Your task to perform on an android device: set an alarm Image 0: 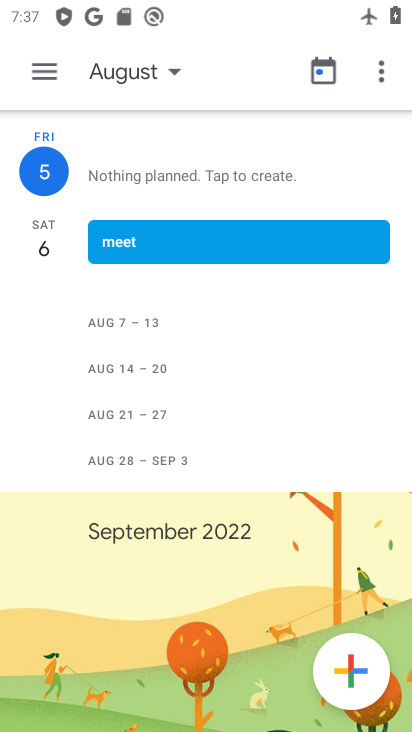
Step 0: press home button
Your task to perform on an android device: set an alarm Image 1: 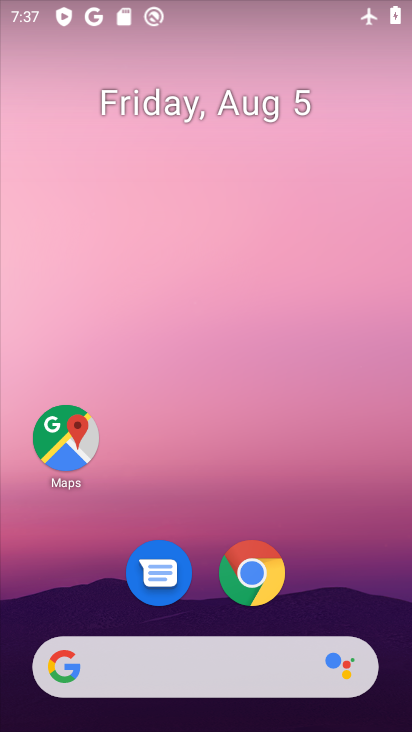
Step 1: drag from (221, 486) to (263, 40)
Your task to perform on an android device: set an alarm Image 2: 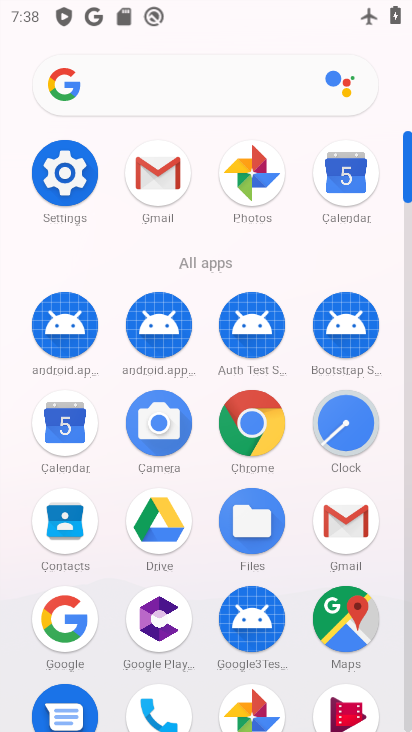
Step 2: click (347, 412)
Your task to perform on an android device: set an alarm Image 3: 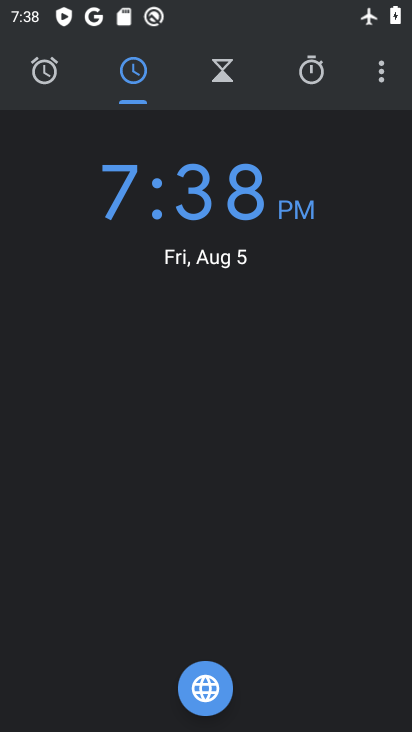
Step 3: click (50, 75)
Your task to perform on an android device: set an alarm Image 4: 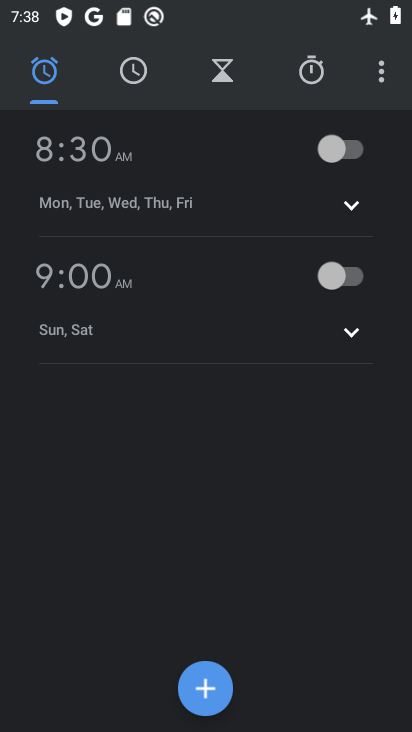
Step 4: click (202, 689)
Your task to perform on an android device: set an alarm Image 5: 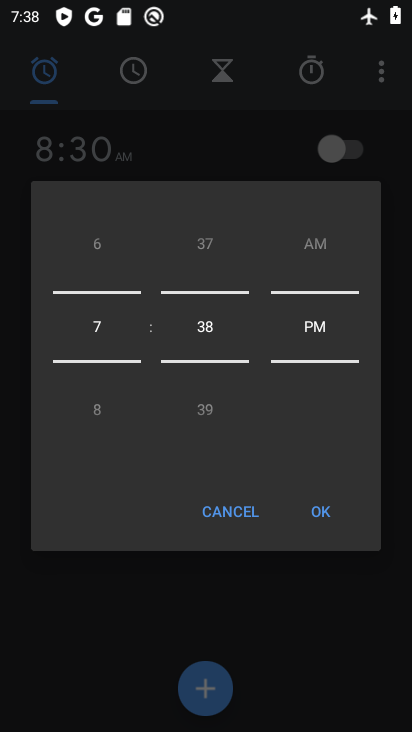
Step 5: click (318, 510)
Your task to perform on an android device: set an alarm Image 6: 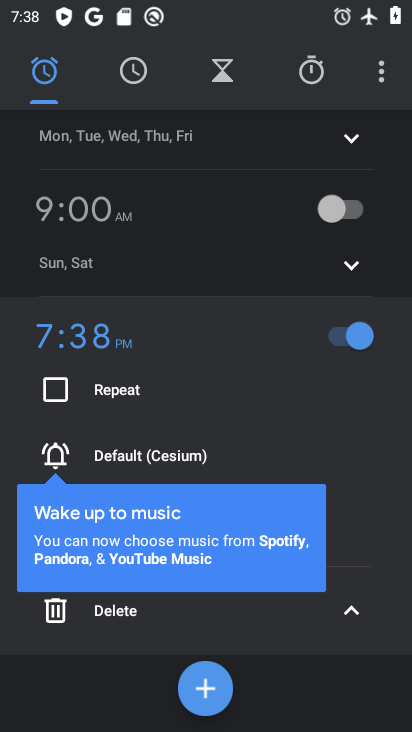
Step 6: task complete